Your task to perform on an android device: remove spam from my inbox in the gmail app Image 0: 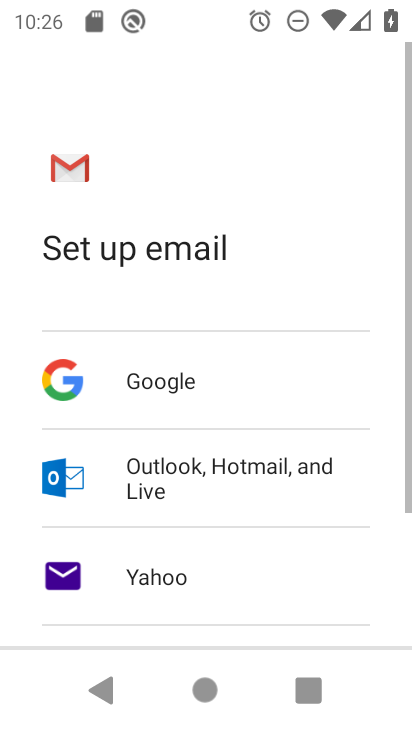
Step 0: press home button
Your task to perform on an android device: remove spam from my inbox in the gmail app Image 1: 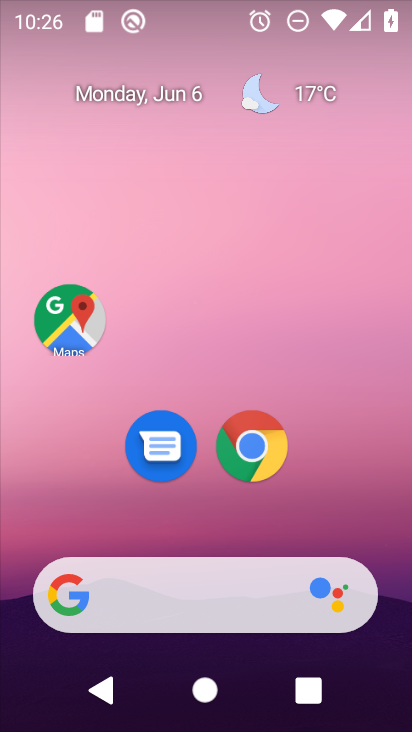
Step 1: drag from (206, 469) to (224, 91)
Your task to perform on an android device: remove spam from my inbox in the gmail app Image 2: 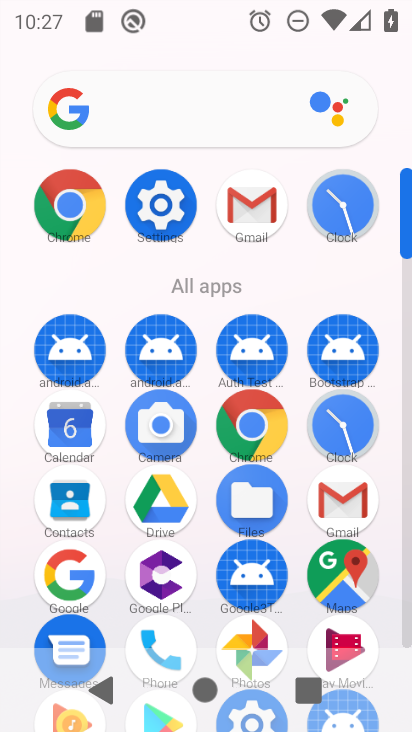
Step 2: click (262, 224)
Your task to perform on an android device: remove spam from my inbox in the gmail app Image 3: 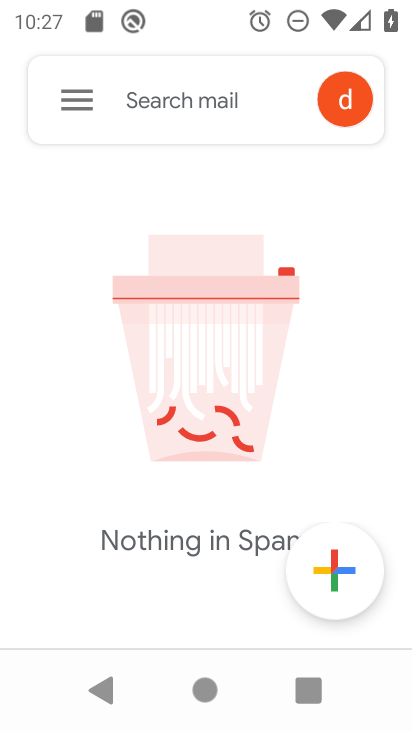
Step 3: click (70, 97)
Your task to perform on an android device: remove spam from my inbox in the gmail app Image 4: 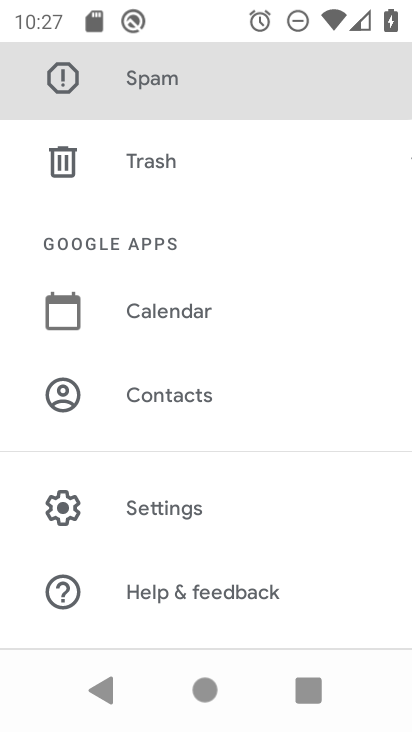
Step 4: click (180, 90)
Your task to perform on an android device: remove spam from my inbox in the gmail app Image 5: 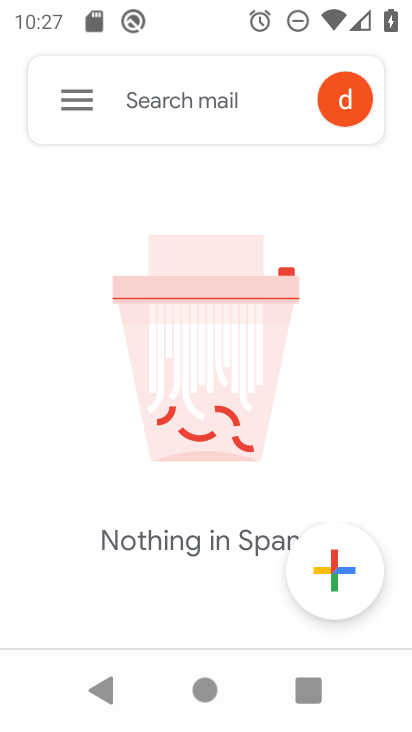
Step 5: task complete